Your task to perform on an android device: Go to display settings Image 0: 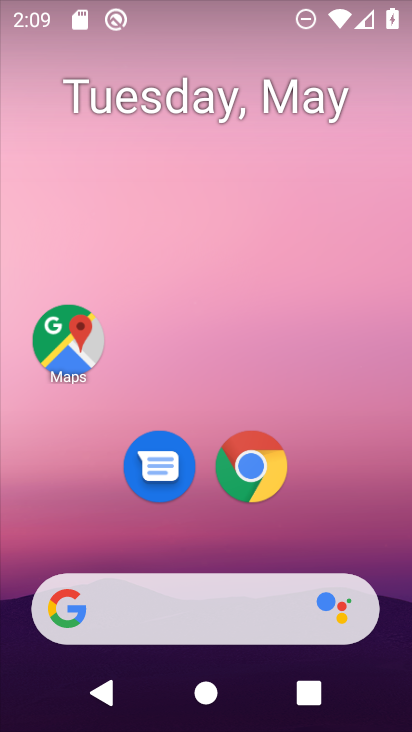
Step 0: drag from (313, 548) to (314, 30)
Your task to perform on an android device: Go to display settings Image 1: 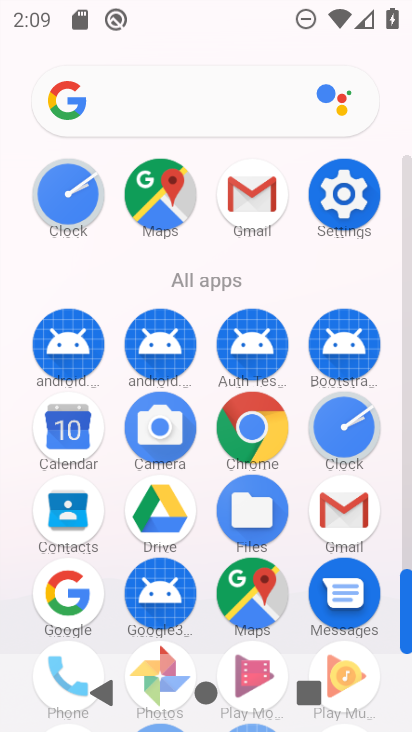
Step 1: click (352, 200)
Your task to perform on an android device: Go to display settings Image 2: 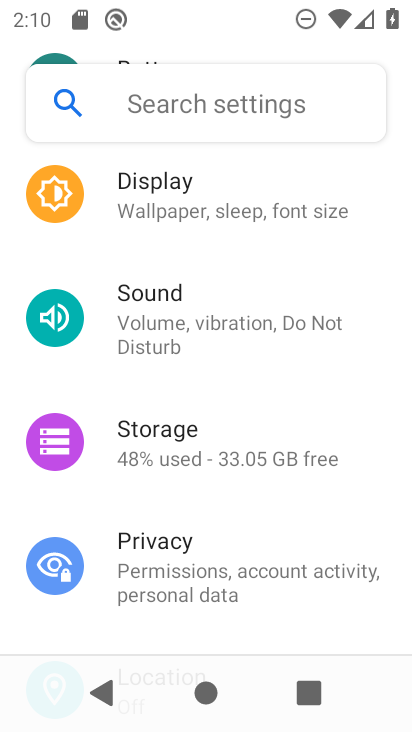
Step 2: drag from (213, 535) to (227, 177)
Your task to perform on an android device: Go to display settings Image 3: 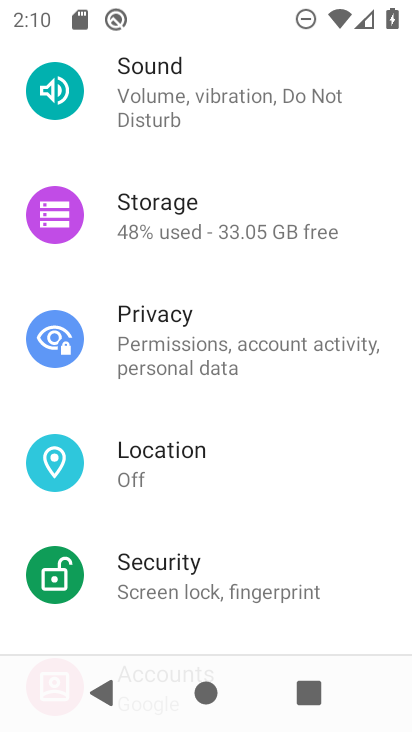
Step 3: drag from (249, 204) to (292, 577)
Your task to perform on an android device: Go to display settings Image 4: 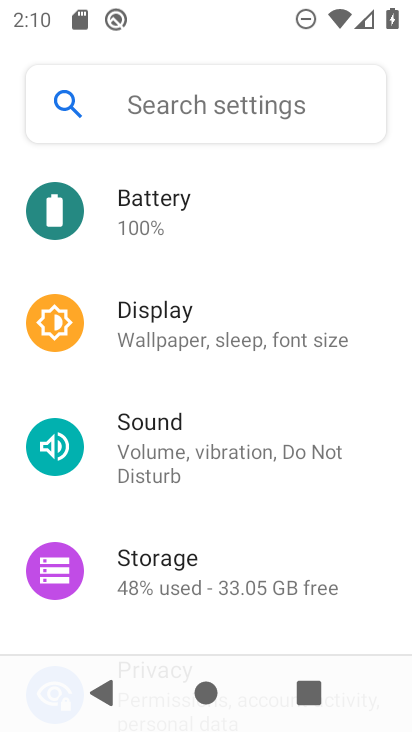
Step 4: click (241, 309)
Your task to perform on an android device: Go to display settings Image 5: 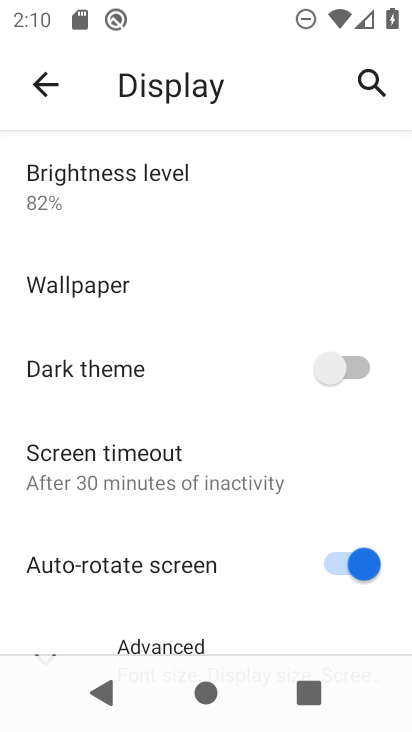
Step 5: task complete